Your task to perform on an android device: star an email in the gmail app Image 0: 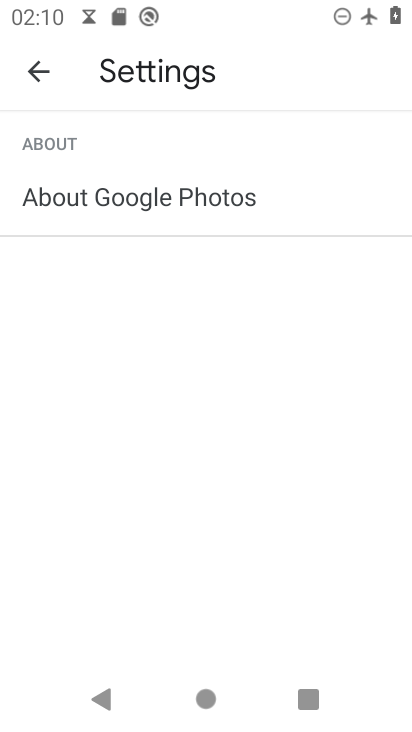
Step 0: click (43, 73)
Your task to perform on an android device: star an email in the gmail app Image 1: 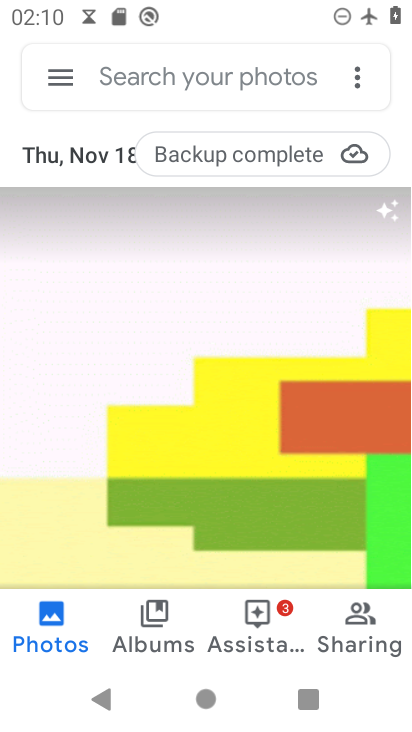
Step 1: press home button
Your task to perform on an android device: star an email in the gmail app Image 2: 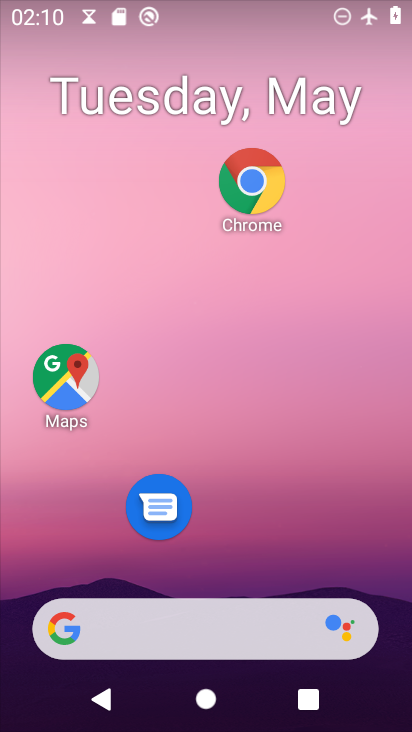
Step 2: drag from (312, 508) to (332, 307)
Your task to perform on an android device: star an email in the gmail app Image 3: 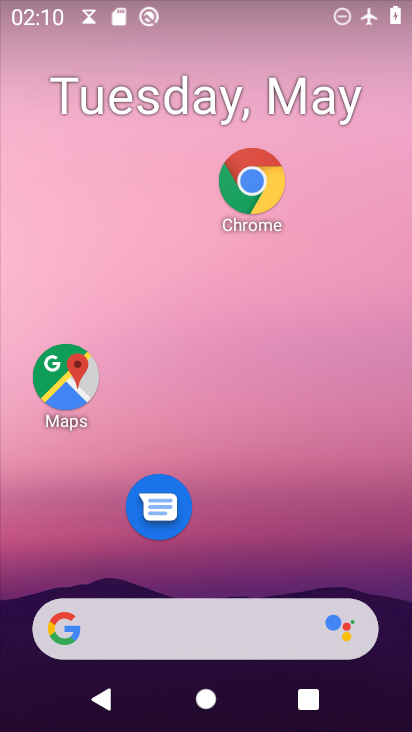
Step 3: drag from (262, 577) to (319, 248)
Your task to perform on an android device: star an email in the gmail app Image 4: 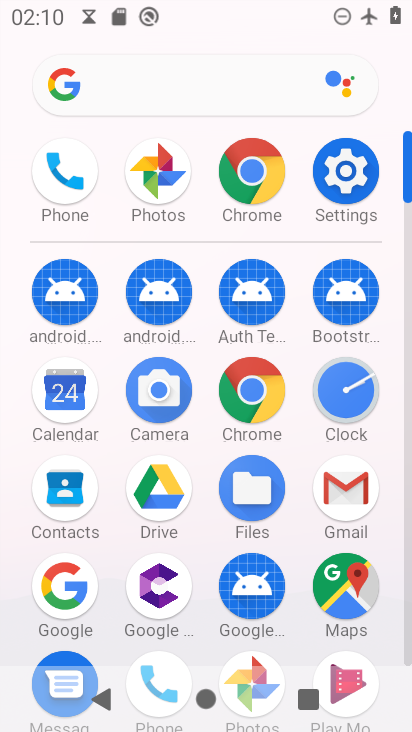
Step 4: click (349, 482)
Your task to perform on an android device: star an email in the gmail app Image 5: 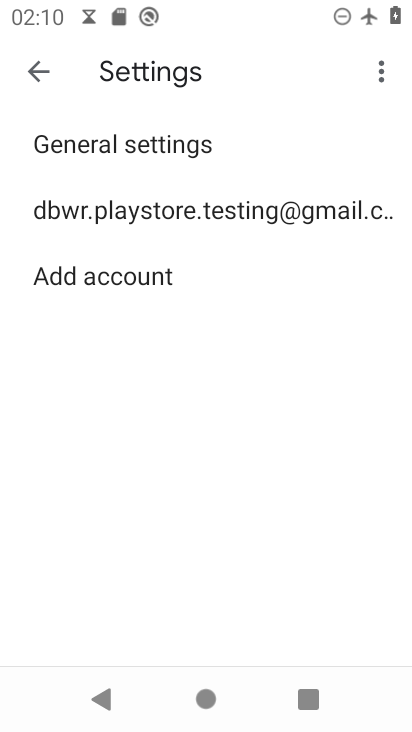
Step 5: click (145, 208)
Your task to perform on an android device: star an email in the gmail app Image 6: 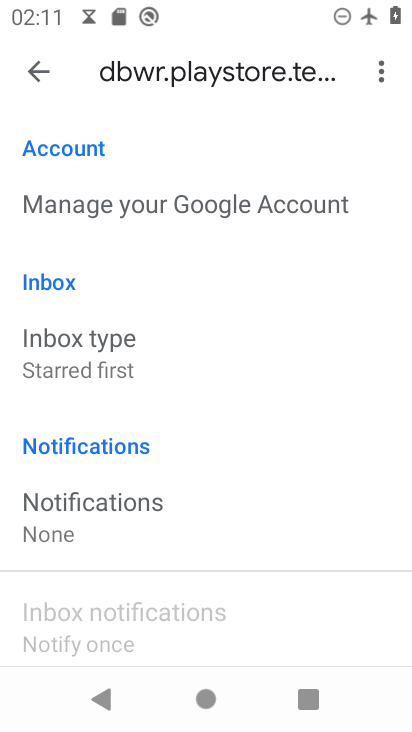
Step 6: click (26, 77)
Your task to perform on an android device: star an email in the gmail app Image 7: 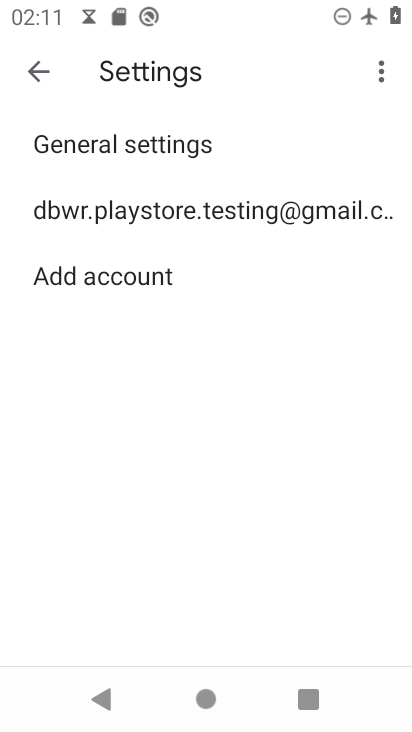
Step 7: click (30, 73)
Your task to perform on an android device: star an email in the gmail app Image 8: 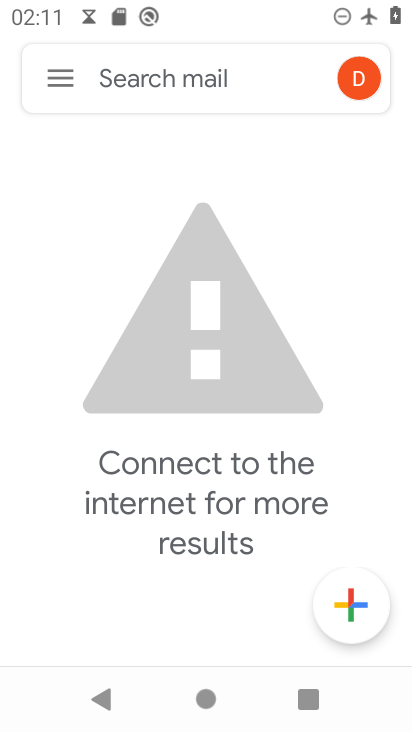
Step 8: click (48, 65)
Your task to perform on an android device: star an email in the gmail app Image 9: 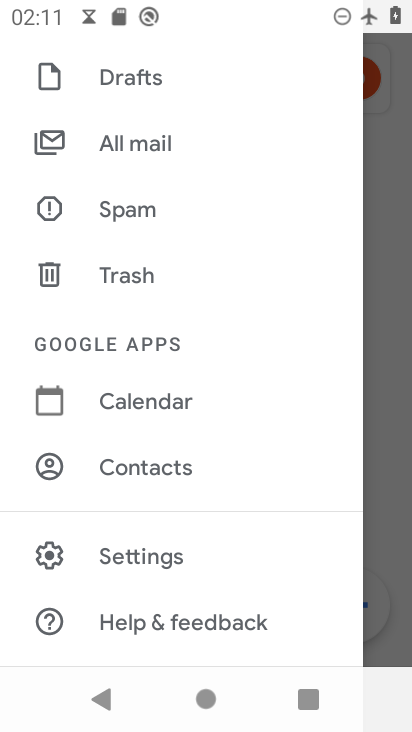
Step 9: drag from (197, 152) to (214, 542)
Your task to perform on an android device: star an email in the gmail app Image 10: 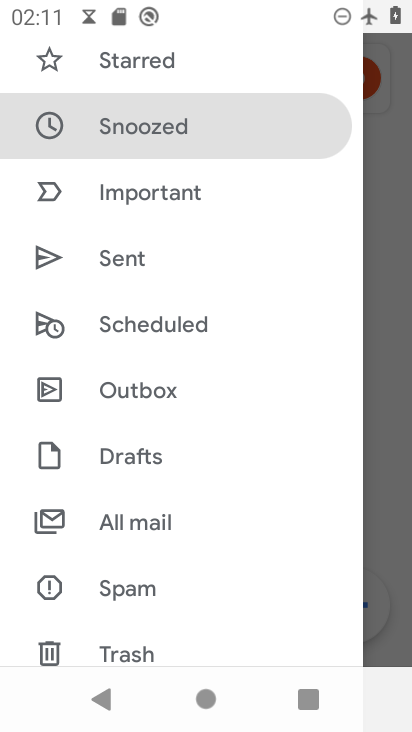
Step 10: click (174, 64)
Your task to perform on an android device: star an email in the gmail app Image 11: 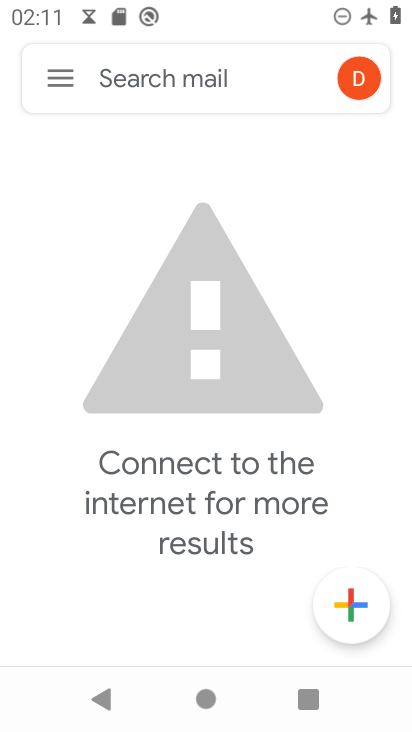
Step 11: task complete